Your task to perform on an android device: check android version Image 0: 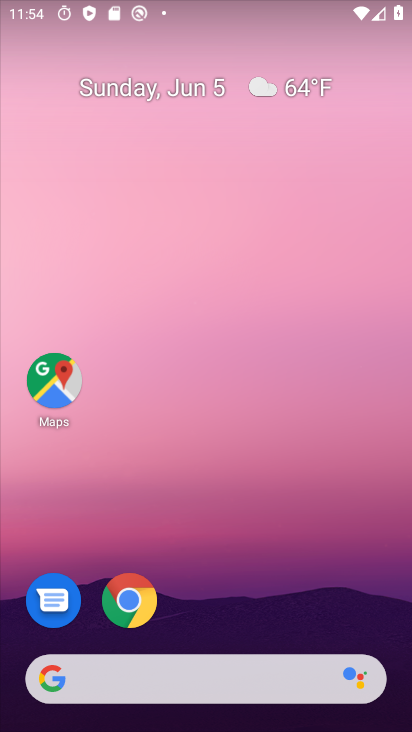
Step 0: drag from (216, 677) to (103, 28)
Your task to perform on an android device: check android version Image 1: 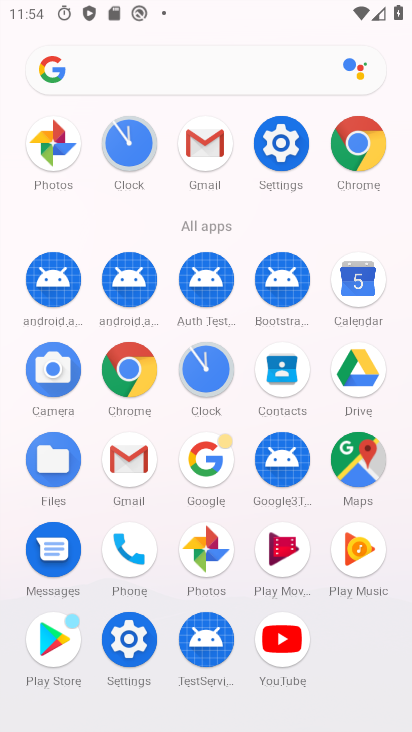
Step 1: click (115, 631)
Your task to perform on an android device: check android version Image 2: 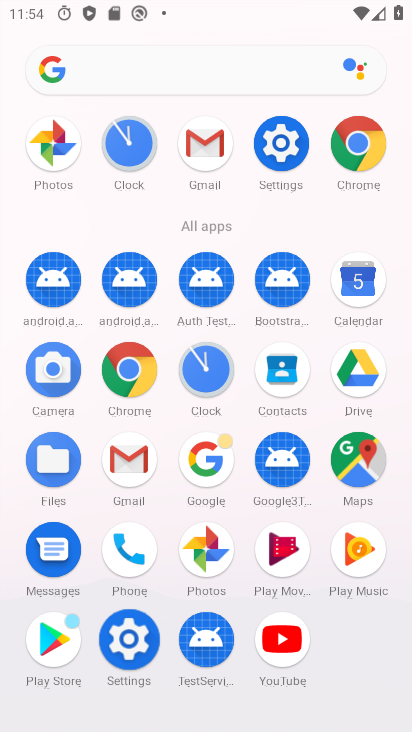
Step 2: click (127, 628)
Your task to perform on an android device: check android version Image 3: 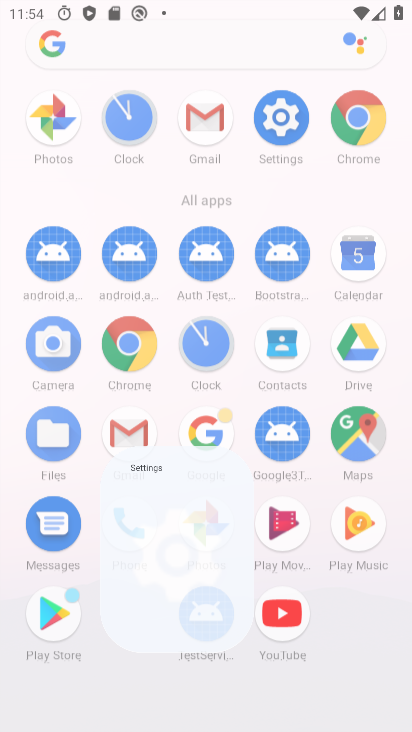
Step 3: click (136, 623)
Your task to perform on an android device: check android version Image 4: 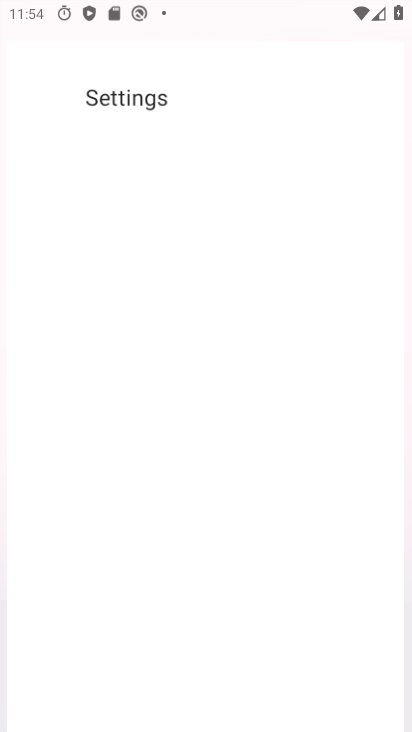
Step 4: click (136, 623)
Your task to perform on an android device: check android version Image 5: 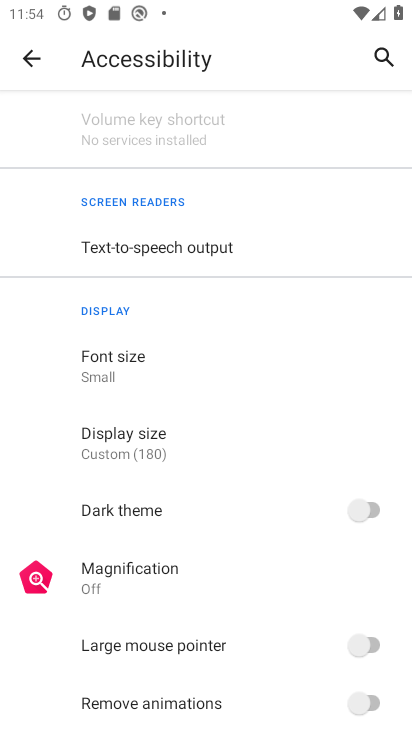
Step 5: click (37, 56)
Your task to perform on an android device: check android version Image 6: 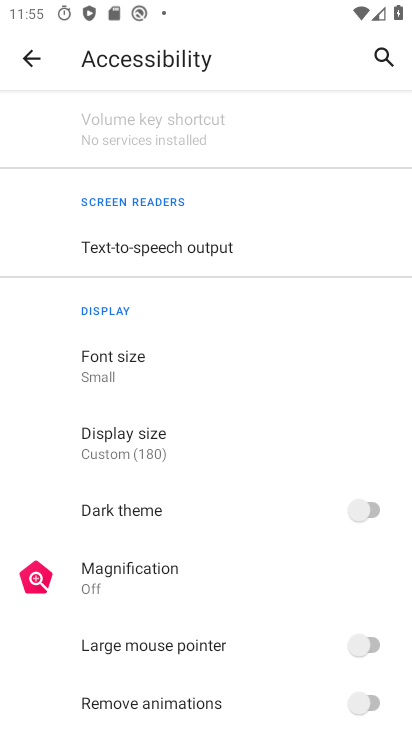
Step 6: drag from (211, 571) to (125, 22)
Your task to perform on an android device: check android version Image 7: 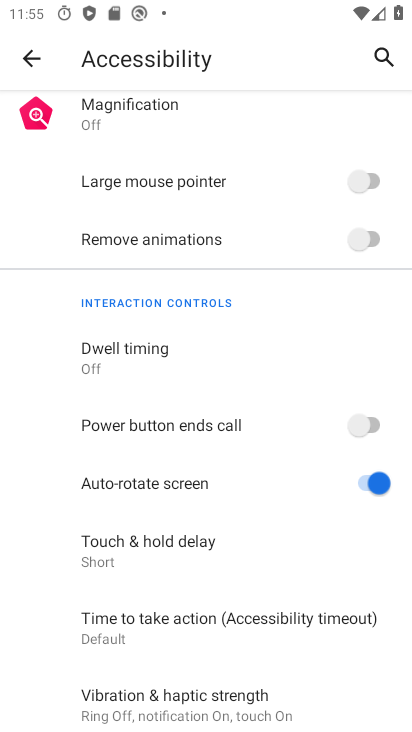
Step 7: click (30, 60)
Your task to perform on an android device: check android version Image 8: 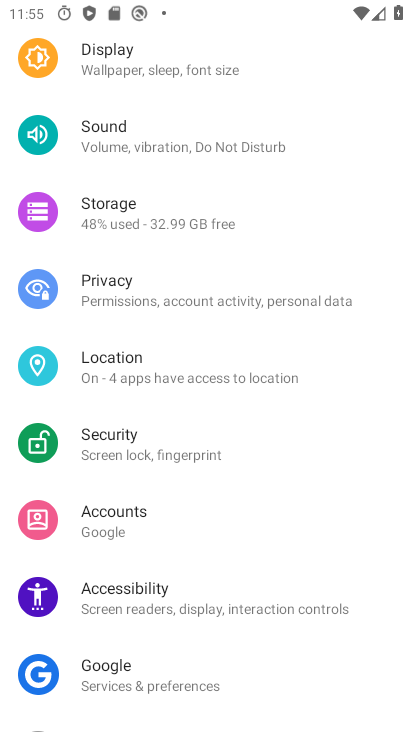
Step 8: drag from (131, 627) to (111, 195)
Your task to perform on an android device: check android version Image 9: 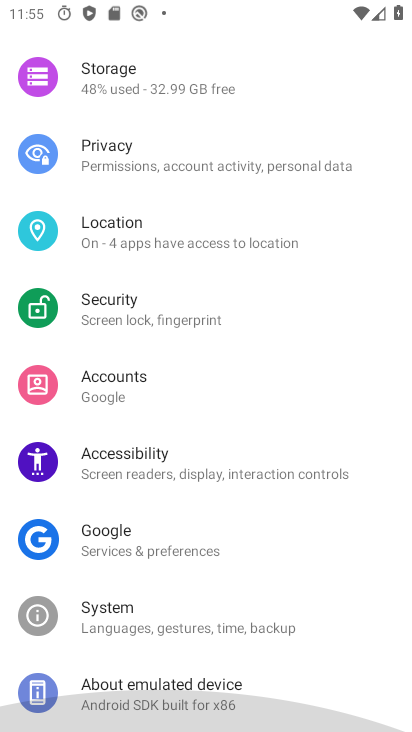
Step 9: drag from (155, 413) to (99, 81)
Your task to perform on an android device: check android version Image 10: 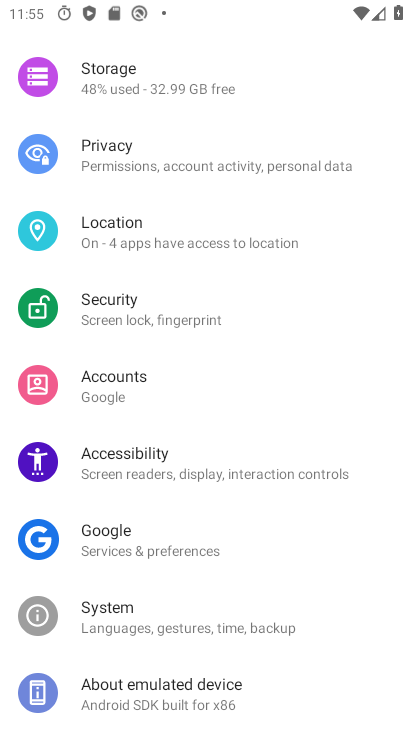
Step 10: click (140, 690)
Your task to perform on an android device: check android version Image 11: 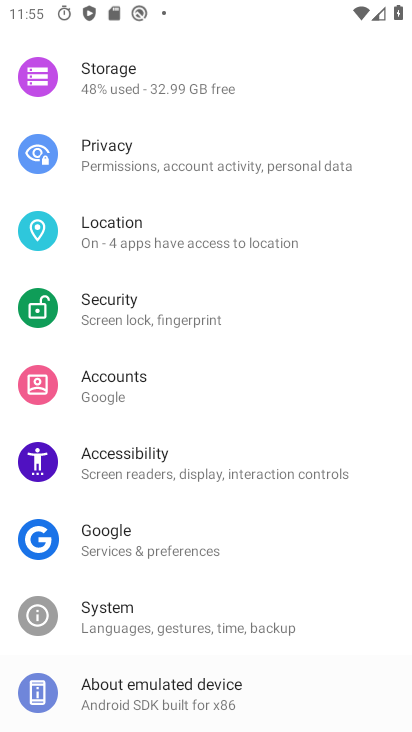
Step 11: click (140, 676)
Your task to perform on an android device: check android version Image 12: 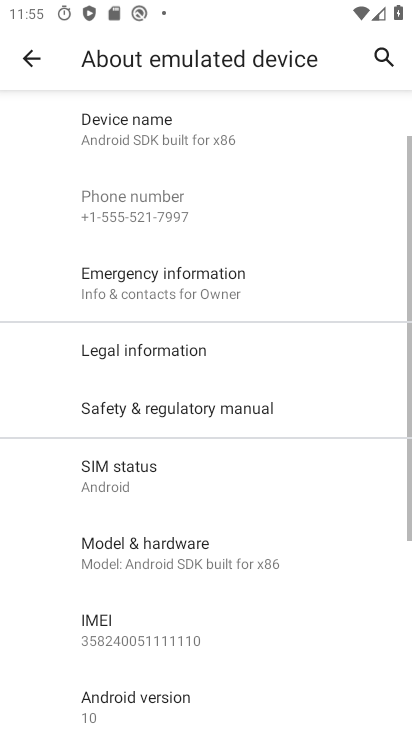
Step 12: drag from (136, 396) to (63, 97)
Your task to perform on an android device: check android version Image 13: 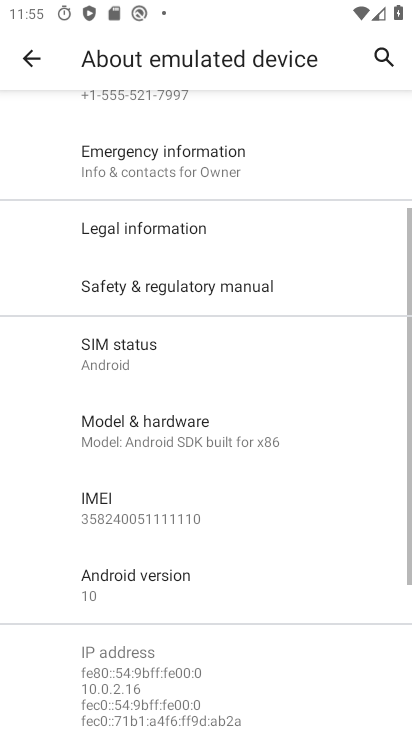
Step 13: click (198, 44)
Your task to perform on an android device: check android version Image 14: 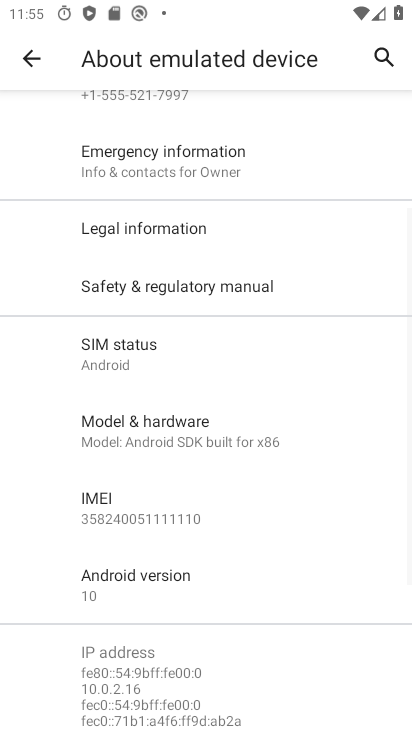
Step 14: drag from (214, 388) to (213, 65)
Your task to perform on an android device: check android version Image 15: 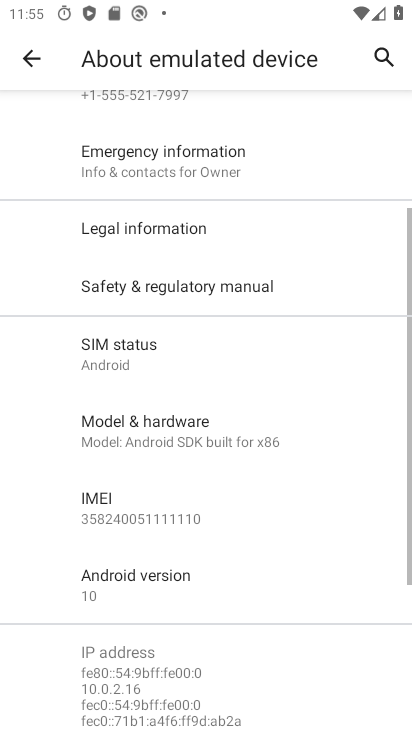
Step 15: drag from (211, 518) to (211, 225)
Your task to perform on an android device: check android version Image 16: 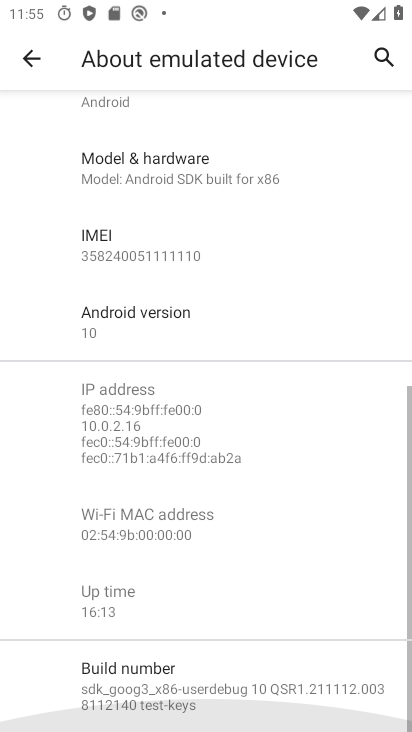
Step 16: click (226, 215)
Your task to perform on an android device: check android version Image 17: 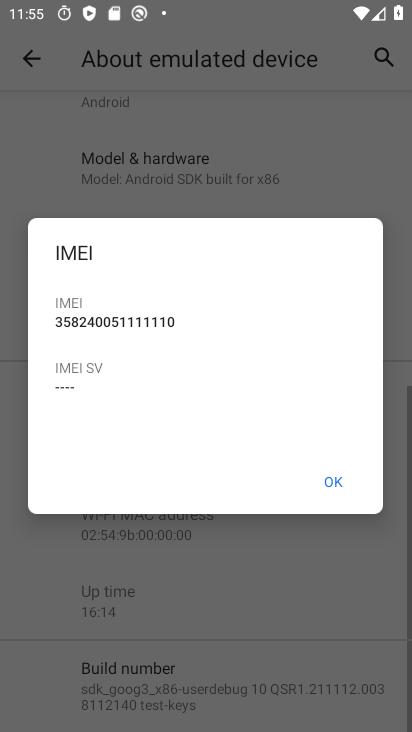
Step 17: task complete